Your task to perform on an android device: Go to internet settings Image 0: 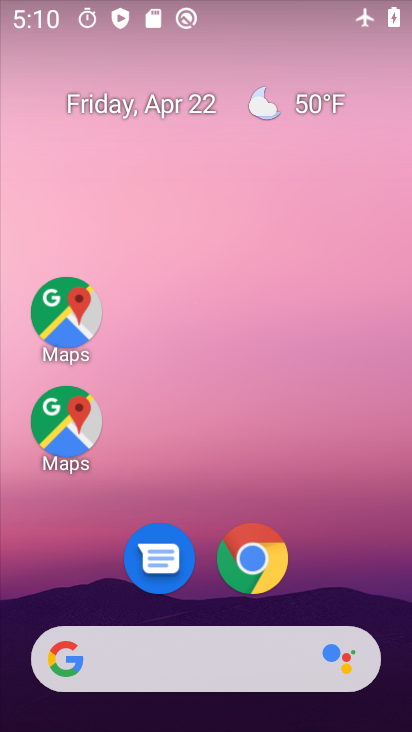
Step 0: drag from (332, 574) to (239, 121)
Your task to perform on an android device: Go to internet settings Image 1: 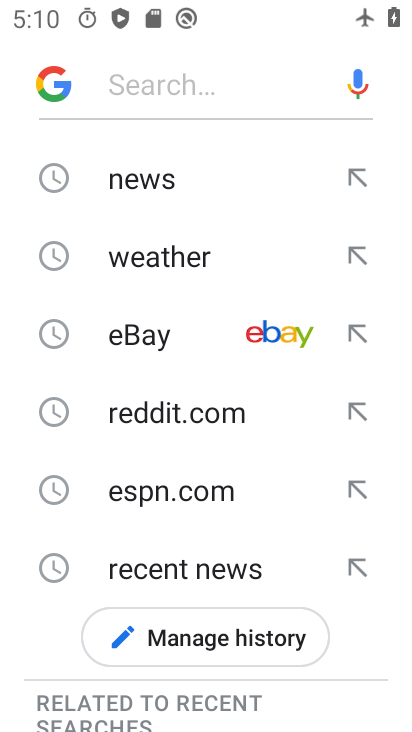
Step 1: press home button
Your task to perform on an android device: Go to internet settings Image 2: 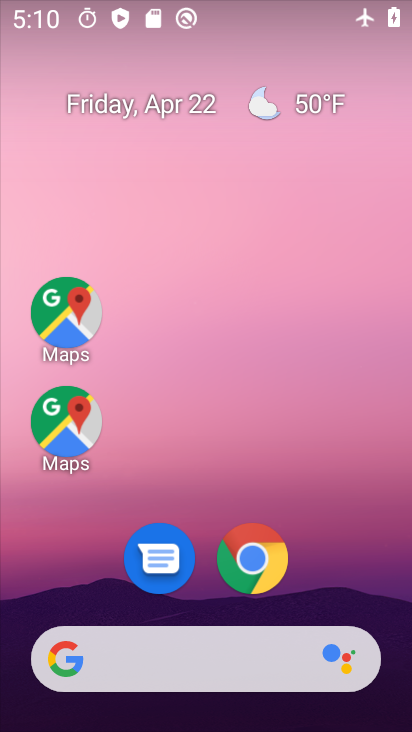
Step 2: click (273, 159)
Your task to perform on an android device: Go to internet settings Image 3: 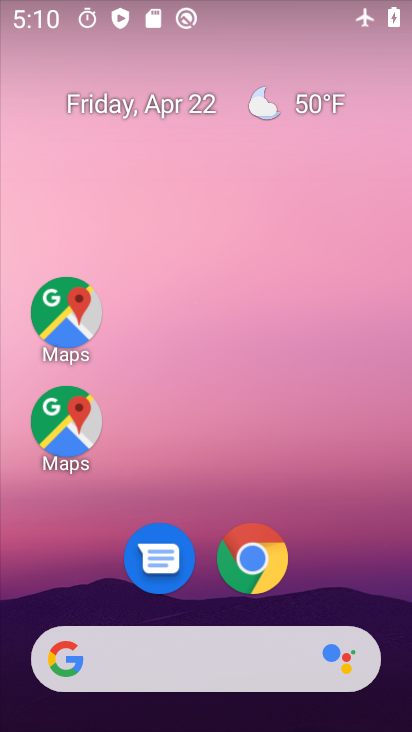
Step 3: drag from (313, 577) to (257, 172)
Your task to perform on an android device: Go to internet settings Image 4: 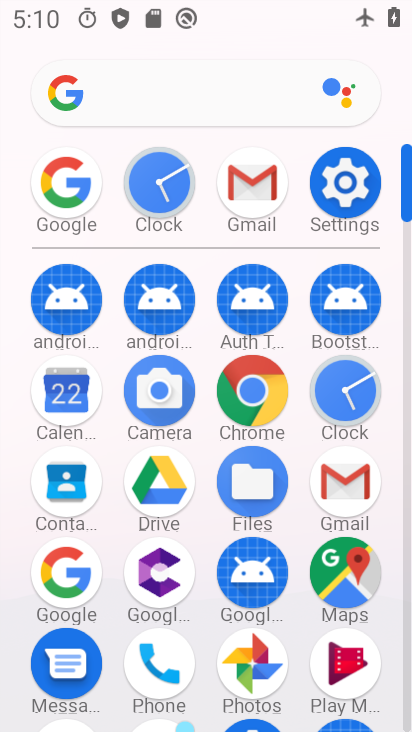
Step 4: click (344, 189)
Your task to perform on an android device: Go to internet settings Image 5: 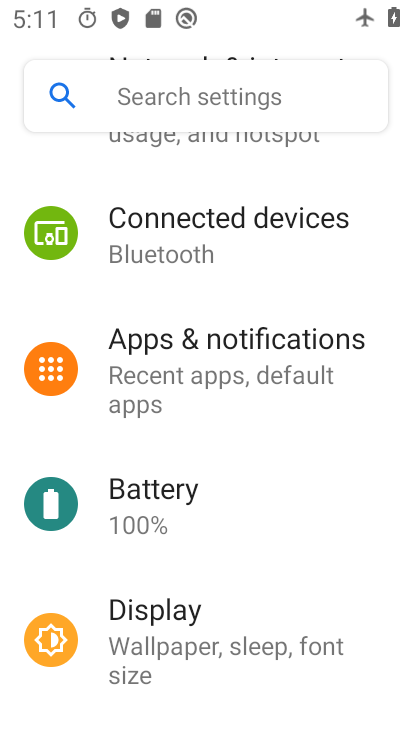
Step 5: drag from (209, 238) to (159, 576)
Your task to perform on an android device: Go to internet settings Image 6: 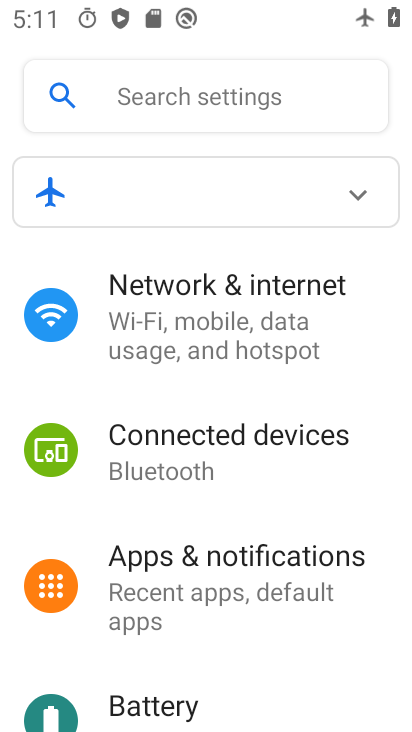
Step 6: click (224, 330)
Your task to perform on an android device: Go to internet settings Image 7: 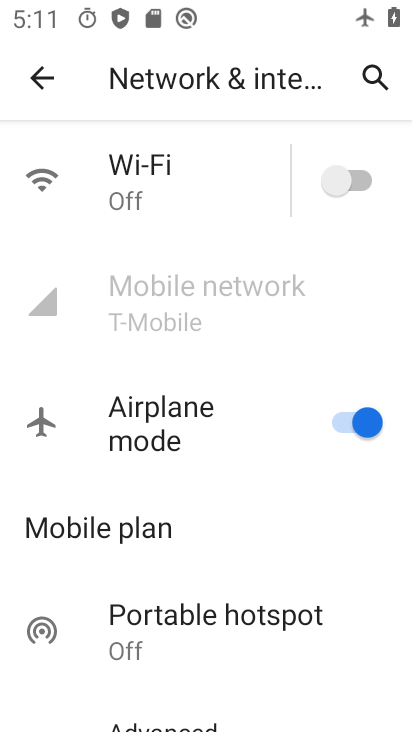
Step 7: task complete